Your task to perform on an android device: Go to internet settings Image 0: 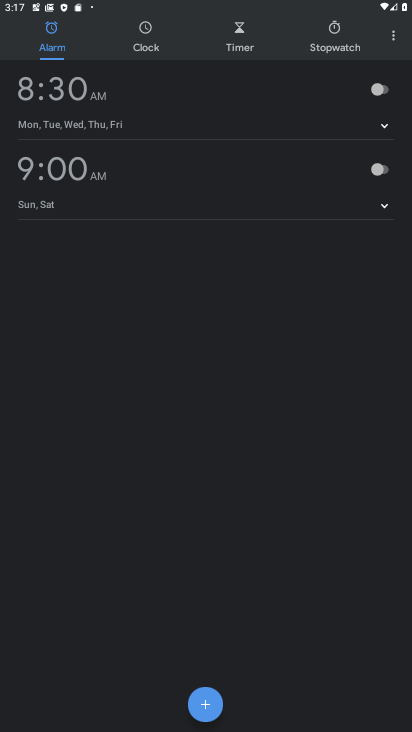
Step 0: press home button
Your task to perform on an android device: Go to internet settings Image 1: 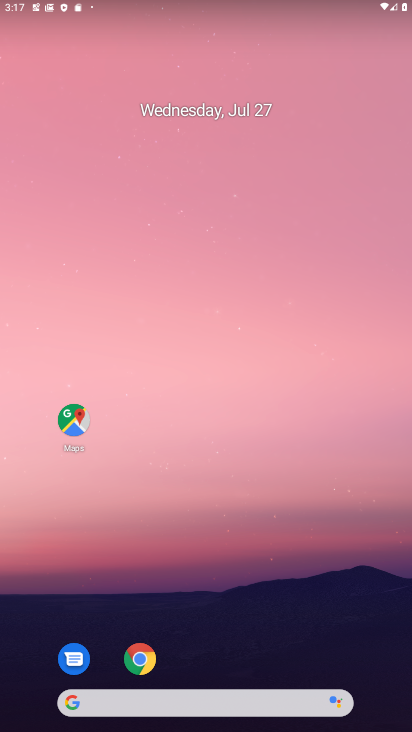
Step 1: click (185, 275)
Your task to perform on an android device: Go to internet settings Image 2: 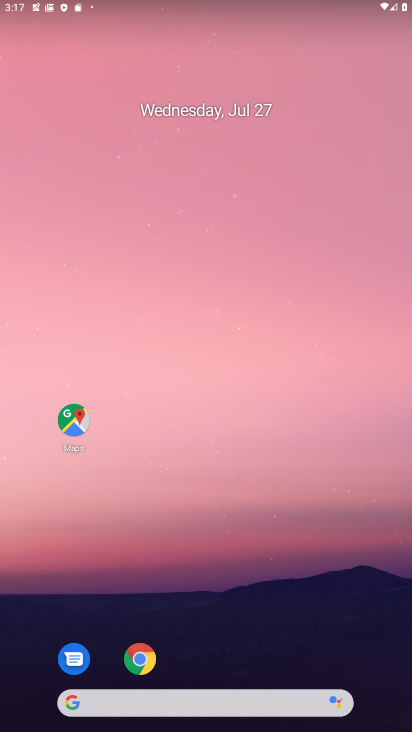
Step 2: drag from (216, 666) to (195, 209)
Your task to perform on an android device: Go to internet settings Image 3: 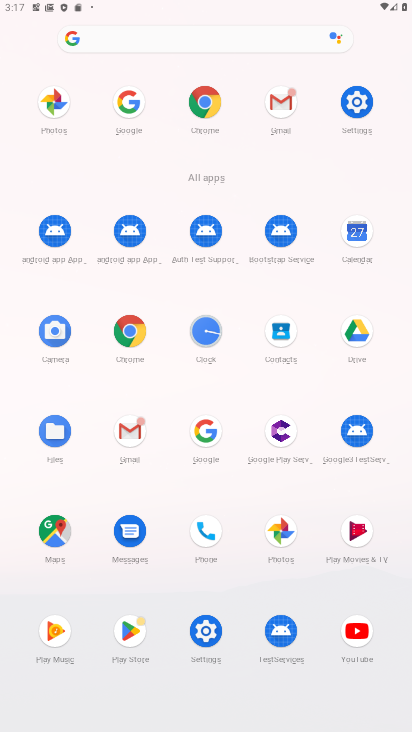
Step 3: click (352, 108)
Your task to perform on an android device: Go to internet settings Image 4: 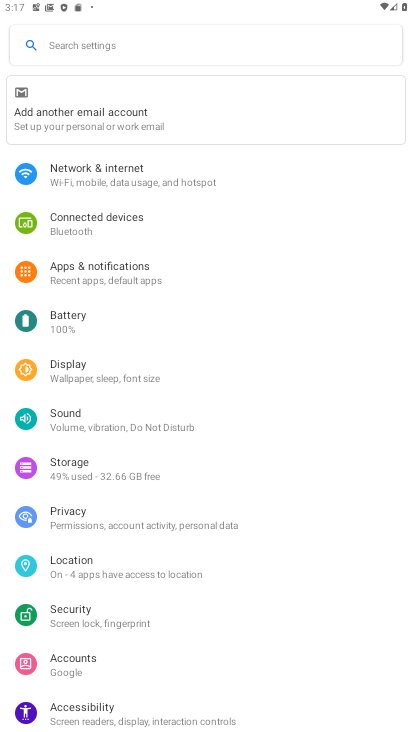
Step 4: click (92, 179)
Your task to perform on an android device: Go to internet settings Image 5: 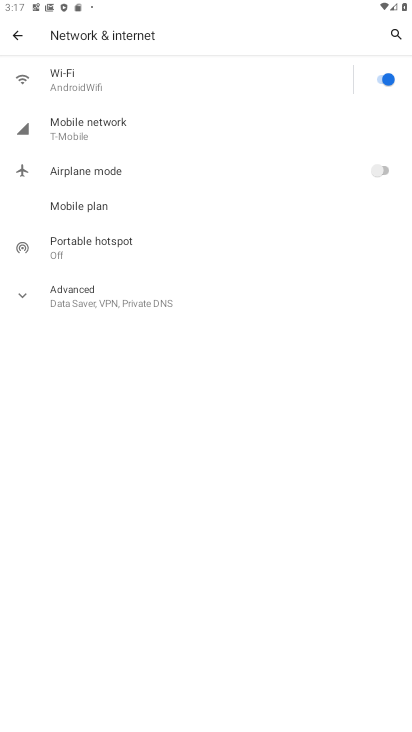
Step 5: click (81, 126)
Your task to perform on an android device: Go to internet settings Image 6: 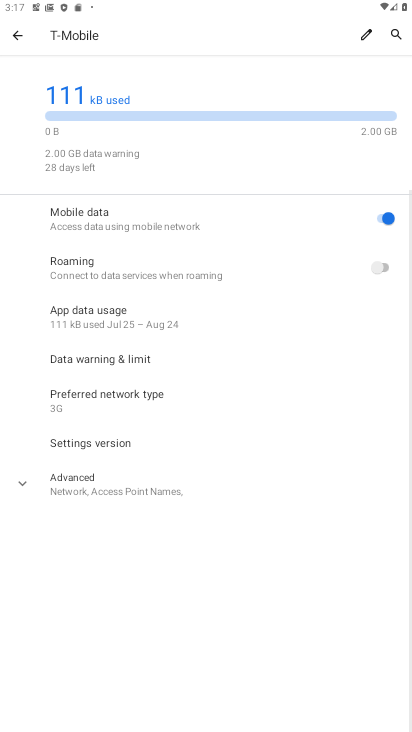
Step 6: click (79, 477)
Your task to perform on an android device: Go to internet settings Image 7: 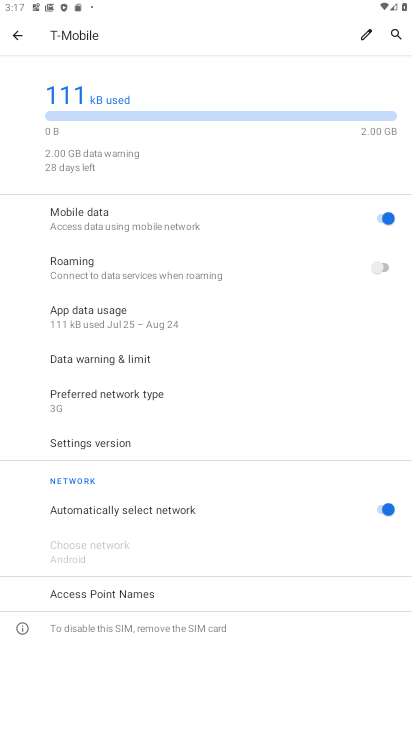
Step 7: task complete